Your task to perform on an android device: Go to Google maps Image 0: 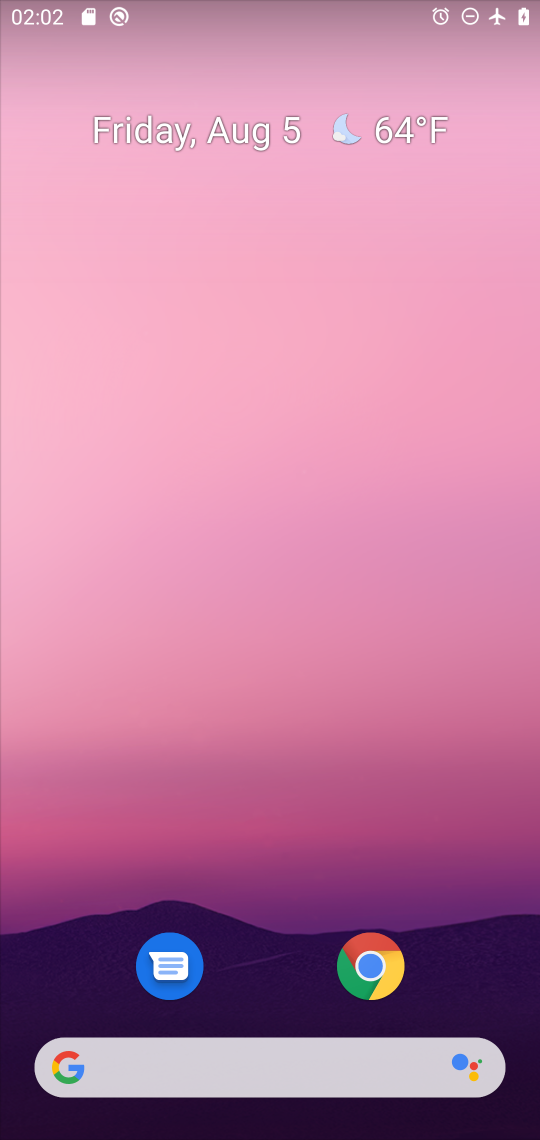
Step 0: drag from (292, 938) to (392, 98)
Your task to perform on an android device: Go to Google maps Image 1: 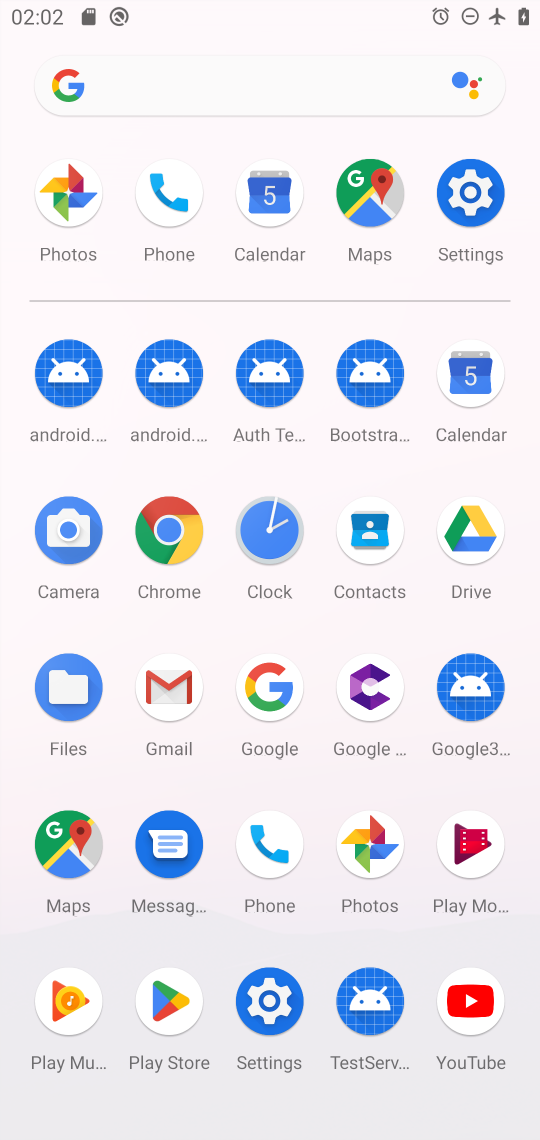
Step 1: click (369, 182)
Your task to perform on an android device: Go to Google maps Image 2: 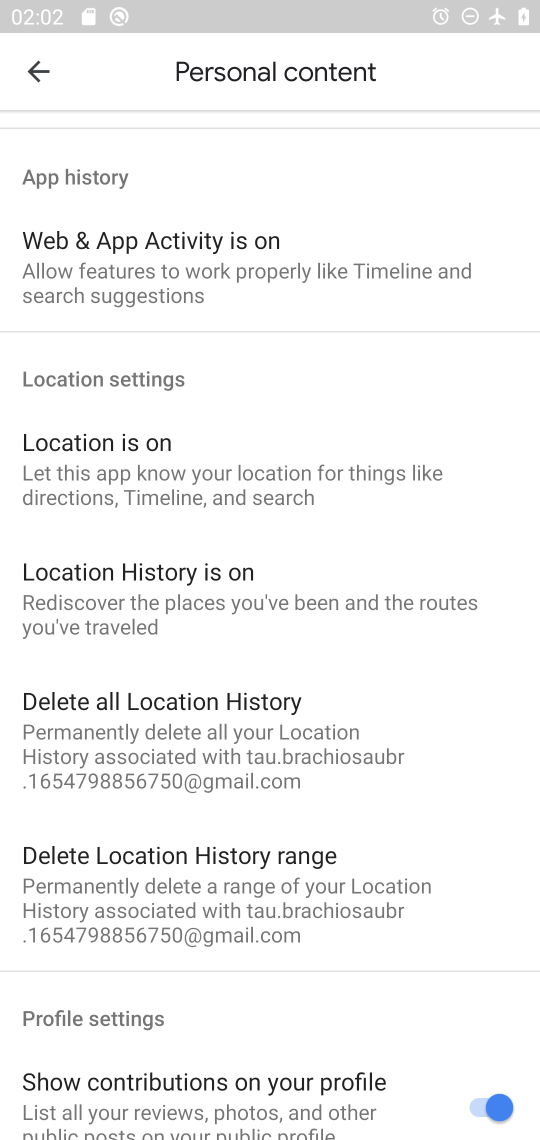
Step 2: click (38, 65)
Your task to perform on an android device: Go to Google maps Image 3: 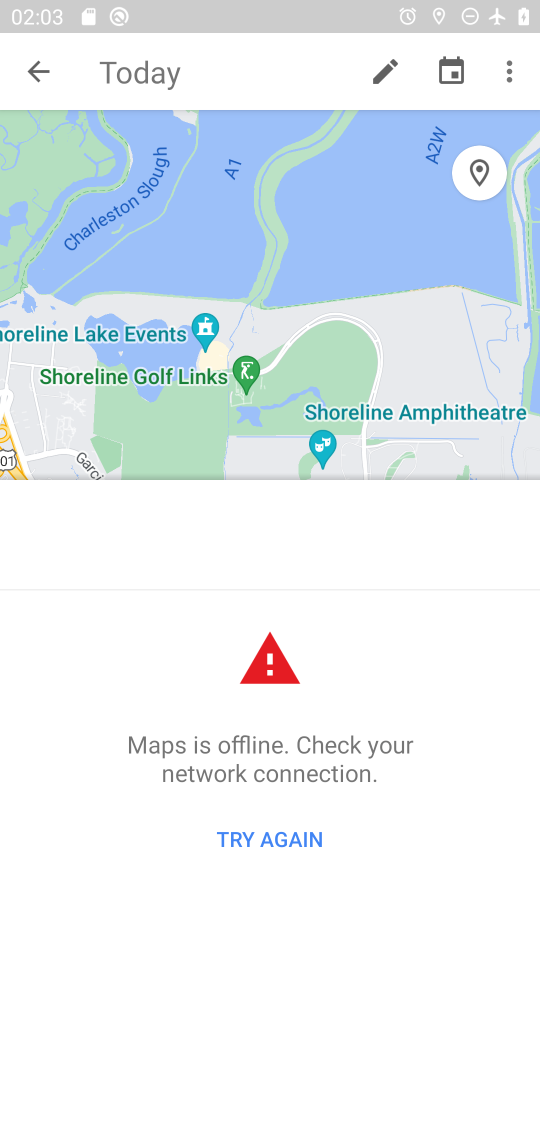
Step 3: task complete